Your task to perform on an android device: check battery use Image 0: 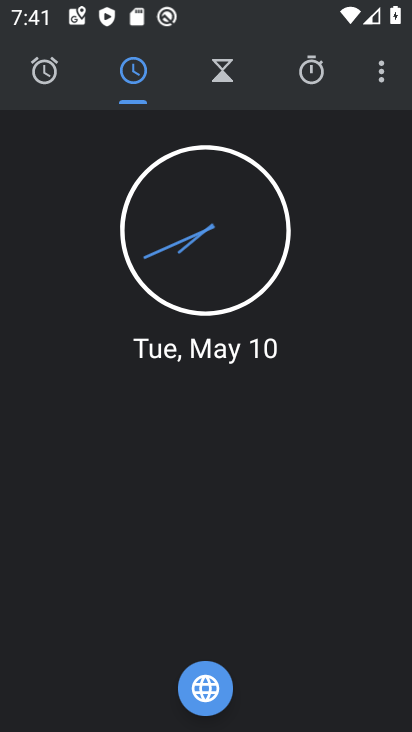
Step 0: press home button
Your task to perform on an android device: check battery use Image 1: 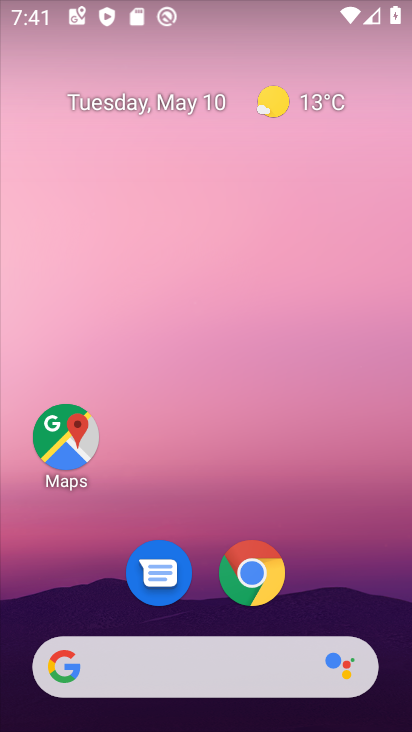
Step 1: drag from (355, 619) to (373, 0)
Your task to perform on an android device: check battery use Image 2: 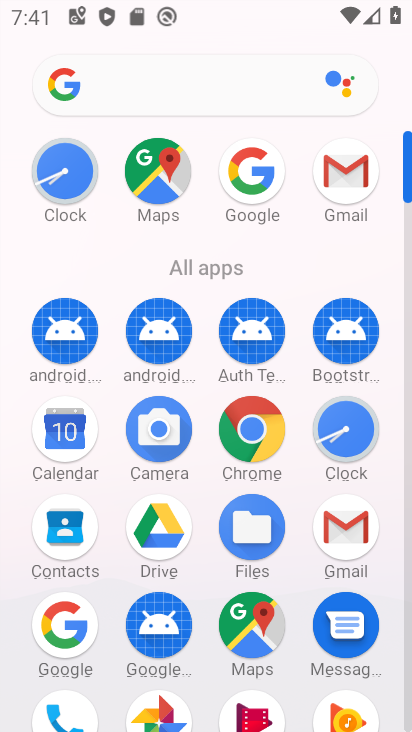
Step 2: click (410, 540)
Your task to perform on an android device: check battery use Image 3: 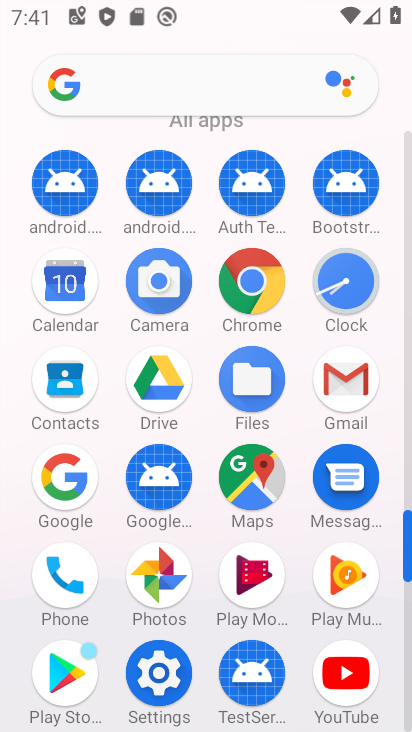
Step 3: click (153, 682)
Your task to perform on an android device: check battery use Image 4: 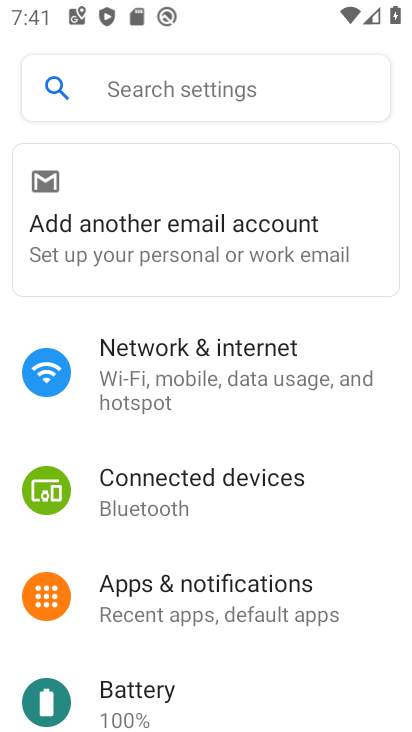
Step 4: click (127, 691)
Your task to perform on an android device: check battery use Image 5: 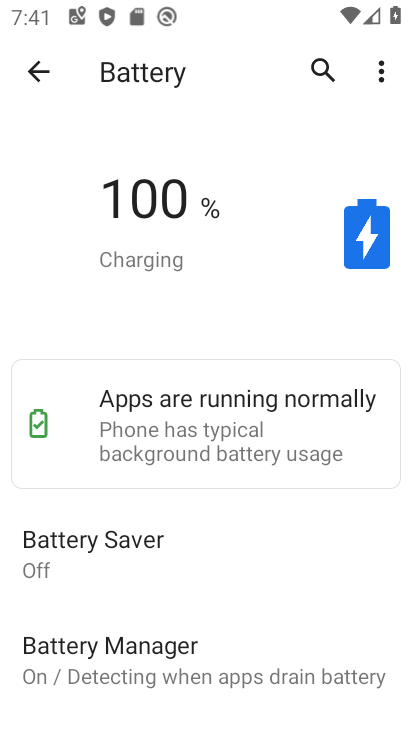
Step 5: click (382, 73)
Your task to perform on an android device: check battery use Image 6: 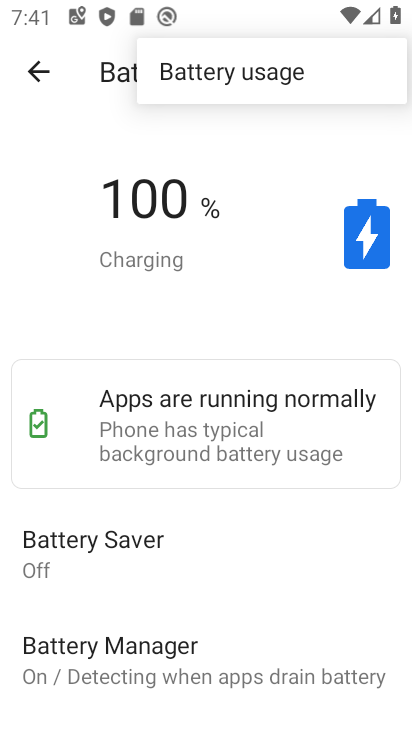
Step 6: click (260, 81)
Your task to perform on an android device: check battery use Image 7: 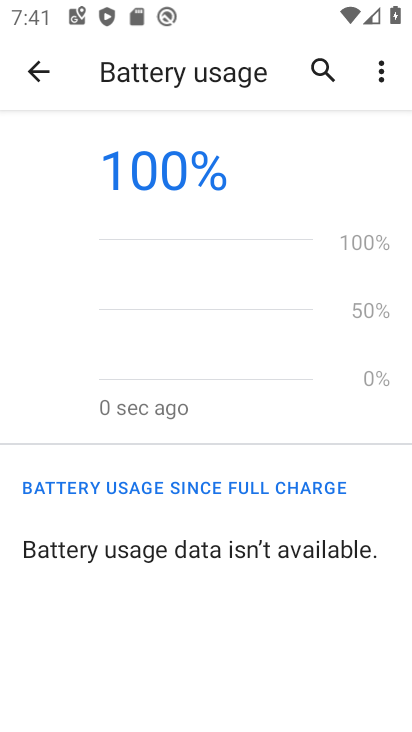
Step 7: task complete